Your task to perform on an android device: open the mobile data screen to see how much data has been used Image 0: 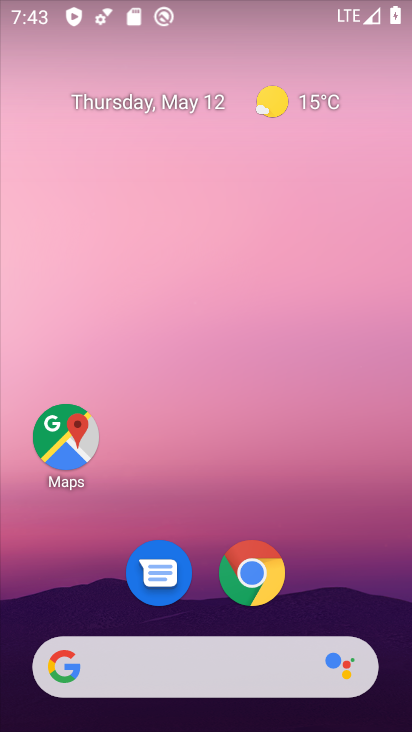
Step 0: drag from (286, 520) to (294, 79)
Your task to perform on an android device: open the mobile data screen to see how much data has been used Image 1: 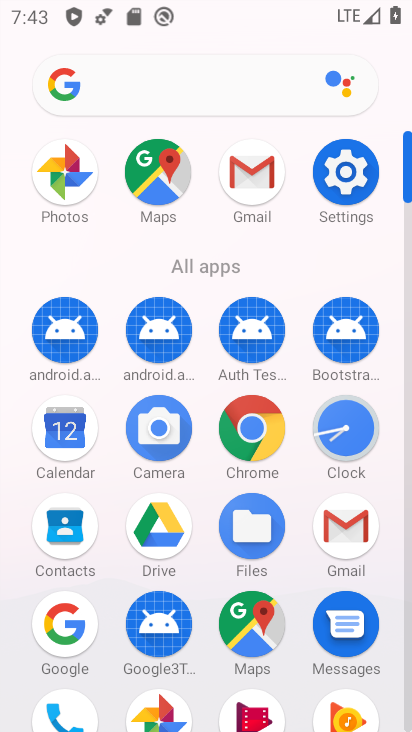
Step 1: click (349, 171)
Your task to perform on an android device: open the mobile data screen to see how much data has been used Image 2: 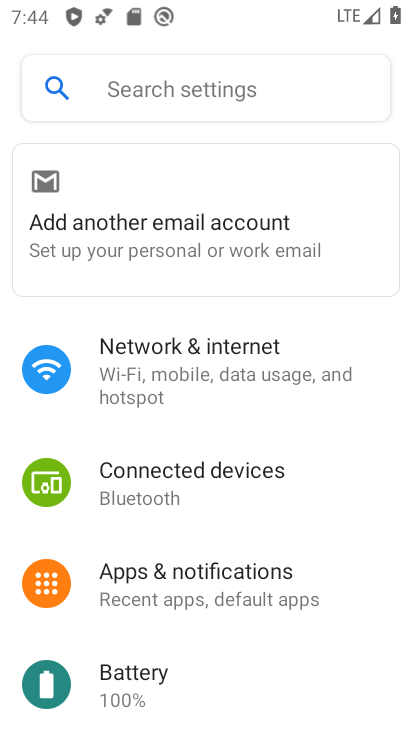
Step 2: click (186, 355)
Your task to perform on an android device: open the mobile data screen to see how much data has been used Image 3: 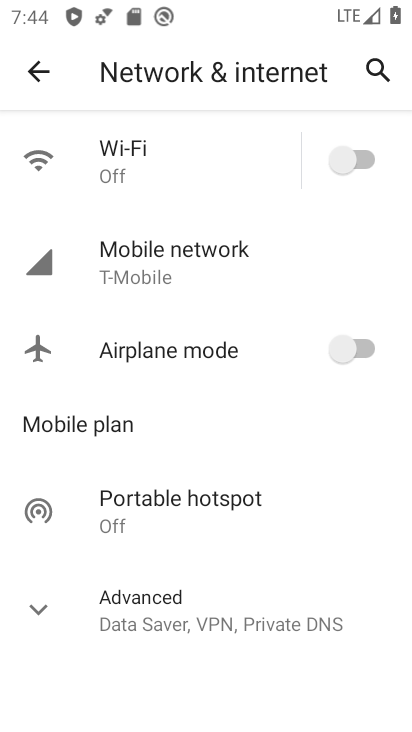
Step 3: click (257, 255)
Your task to perform on an android device: open the mobile data screen to see how much data has been used Image 4: 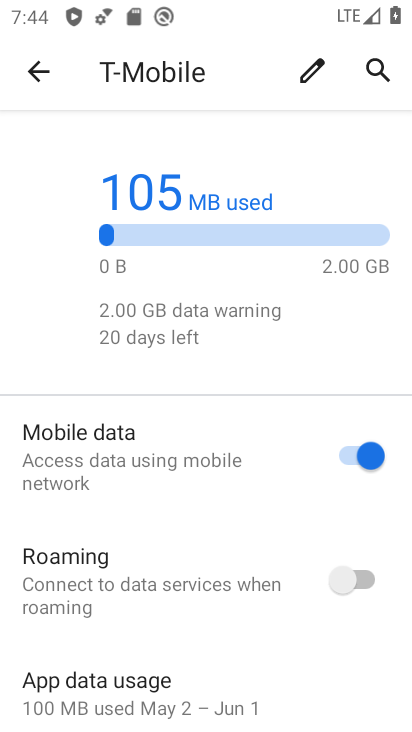
Step 4: task complete